Your task to perform on an android device: Search for pizza restaurants on Maps Image 0: 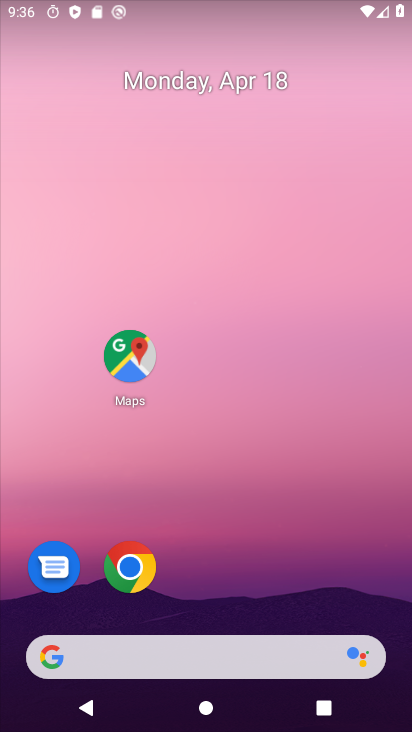
Step 0: click (132, 383)
Your task to perform on an android device: Search for pizza restaurants on Maps Image 1: 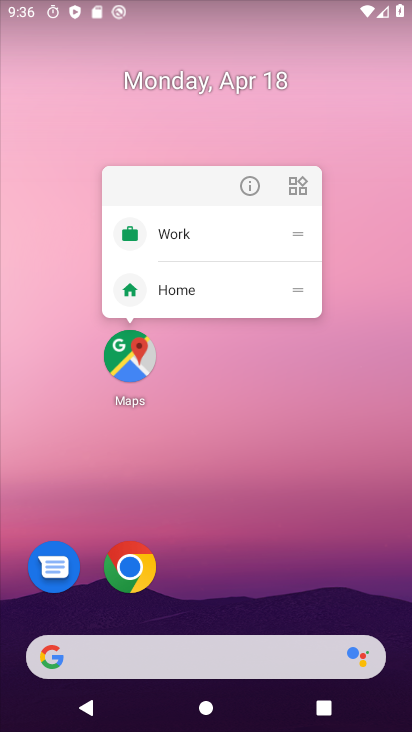
Step 1: drag from (256, 679) to (306, 292)
Your task to perform on an android device: Search for pizza restaurants on Maps Image 2: 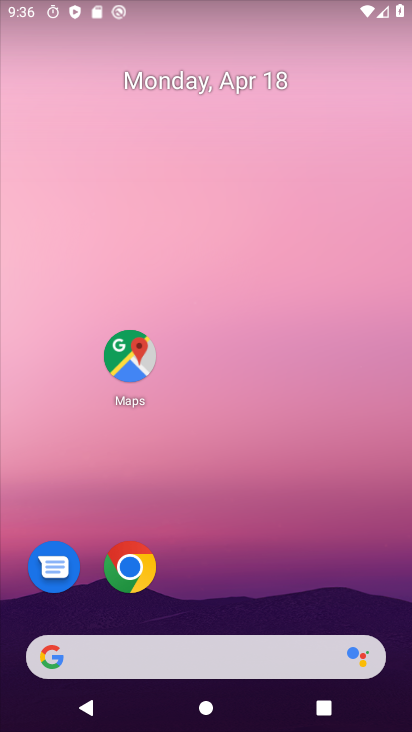
Step 2: drag from (288, 596) to (264, 260)
Your task to perform on an android device: Search for pizza restaurants on Maps Image 3: 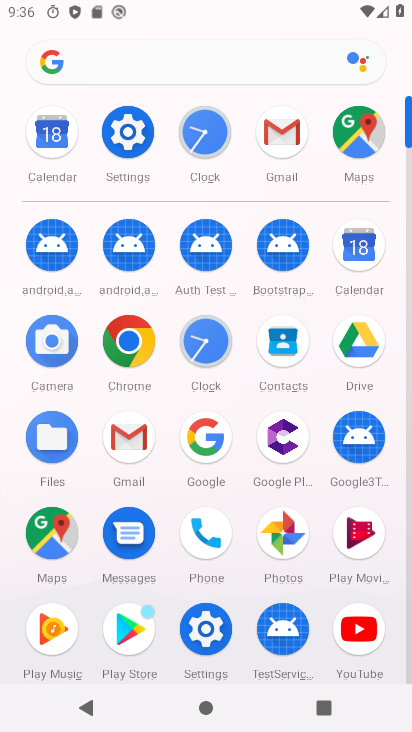
Step 3: click (345, 131)
Your task to perform on an android device: Search for pizza restaurants on Maps Image 4: 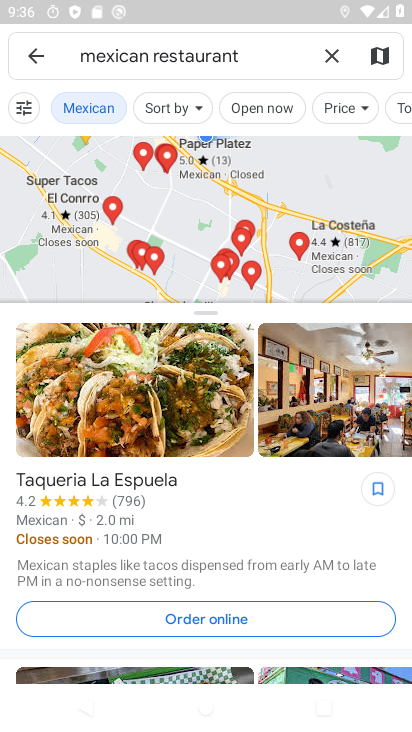
Step 4: click (332, 68)
Your task to perform on an android device: Search for pizza restaurants on Maps Image 5: 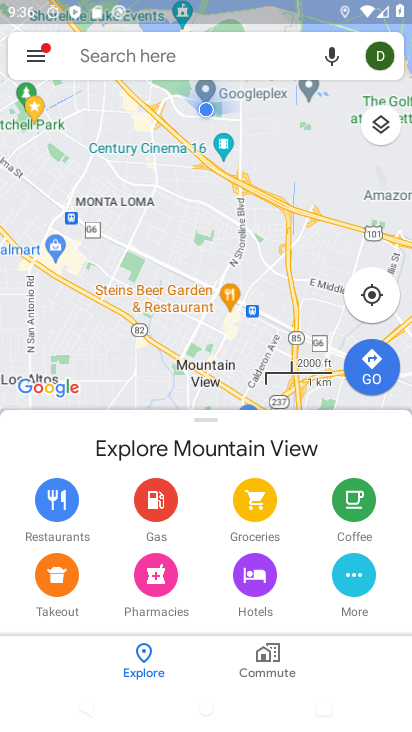
Step 5: click (160, 56)
Your task to perform on an android device: Search for pizza restaurants on Maps Image 6: 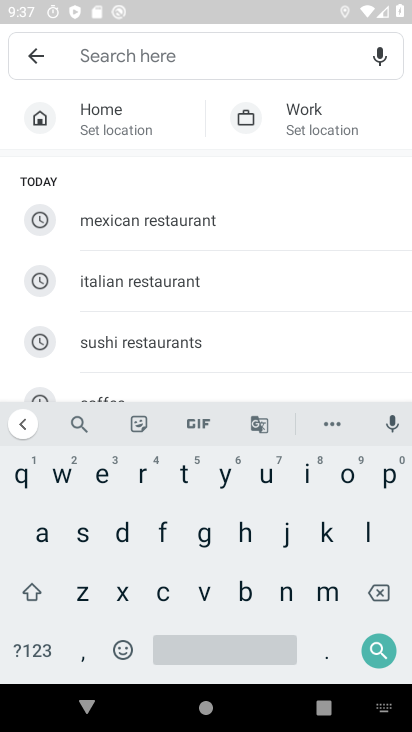
Step 6: click (388, 482)
Your task to perform on an android device: Search for pizza restaurants on Maps Image 7: 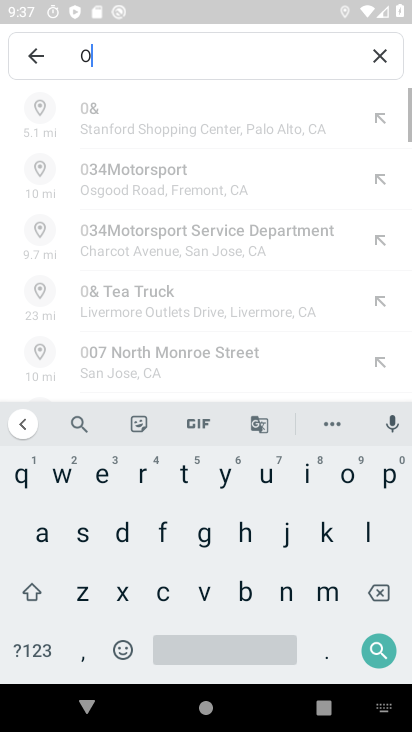
Step 7: click (303, 477)
Your task to perform on an android device: Search for pizza restaurants on Maps Image 8: 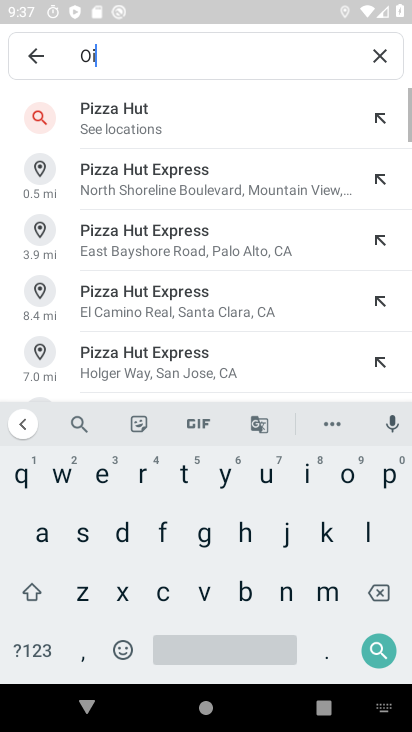
Step 8: click (381, 50)
Your task to perform on an android device: Search for pizza restaurants on Maps Image 9: 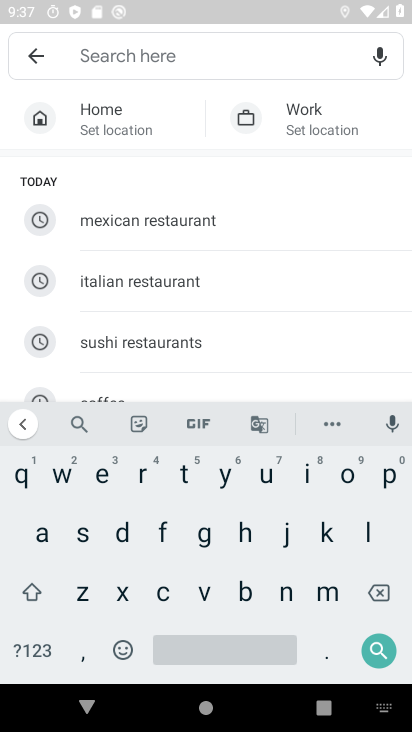
Step 9: click (387, 483)
Your task to perform on an android device: Search for pizza restaurants on Maps Image 10: 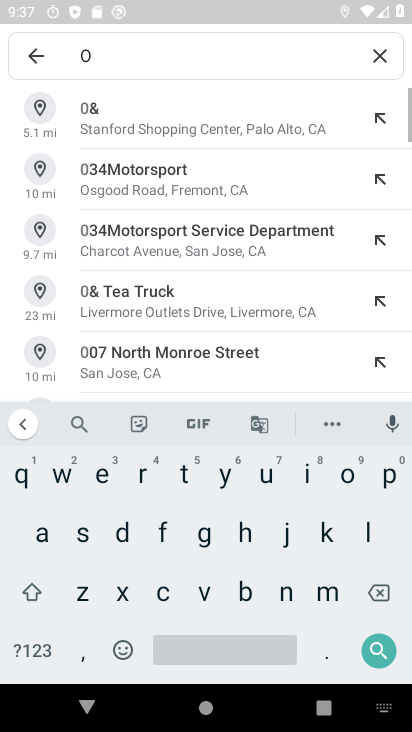
Step 10: click (303, 483)
Your task to perform on an android device: Search for pizza restaurants on Maps Image 11: 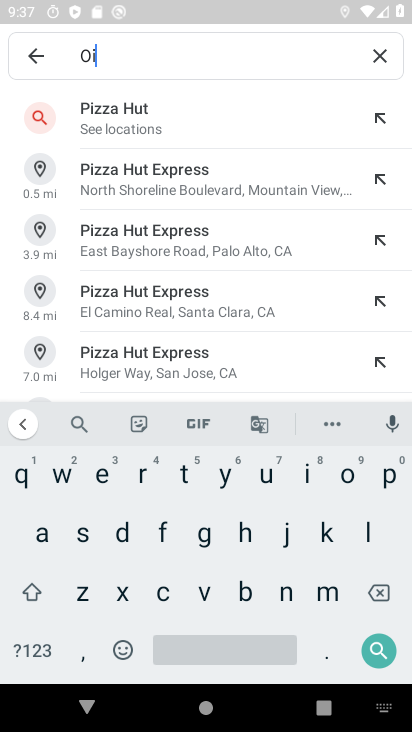
Step 11: click (85, 595)
Your task to perform on an android device: Search for pizza restaurants on Maps Image 12: 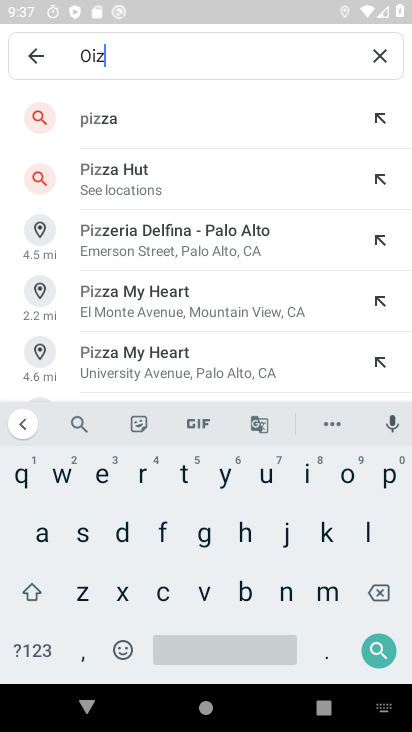
Step 12: click (366, 77)
Your task to perform on an android device: Search for pizza restaurants on Maps Image 13: 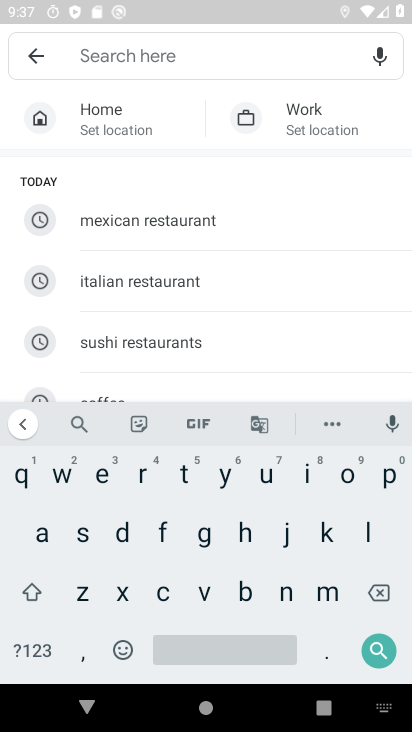
Step 13: click (383, 472)
Your task to perform on an android device: Search for pizza restaurants on Maps Image 14: 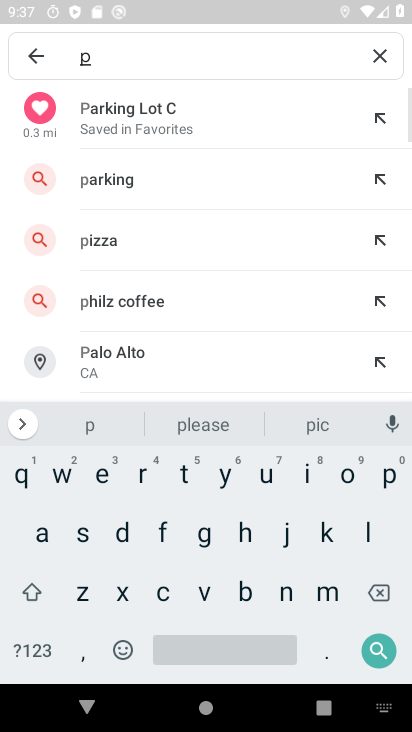
Step 14: click (310, 470)
Your task to perform on an android device: Search for pizza restaurants on Maps Image 15: 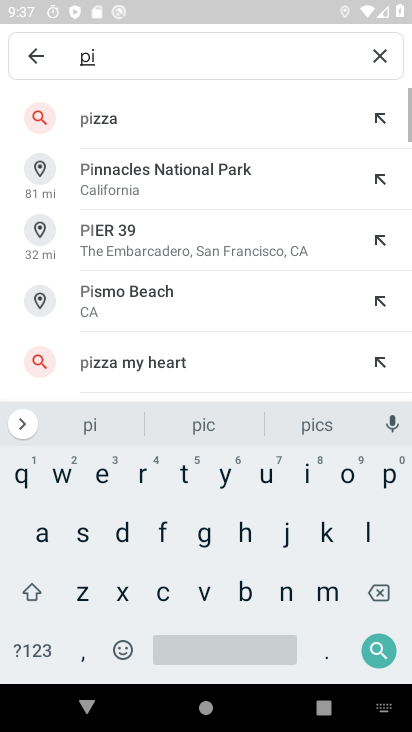
Step 15: click (88, 597)
Your task to perform on an android device: Search for pizza restaurants on Maps Image 16: 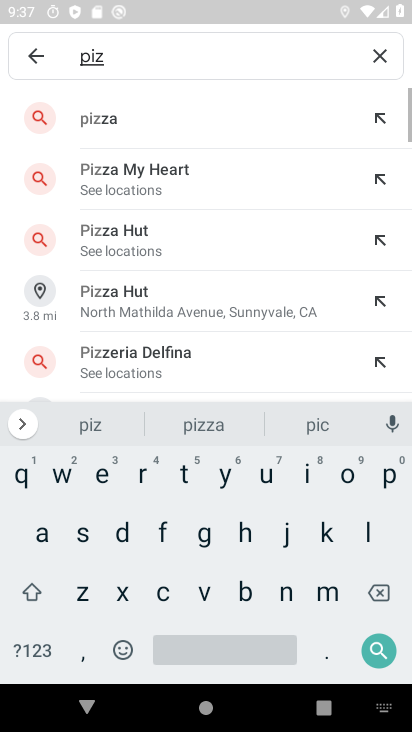
Step 16: click (89, 595)
Your task to perform on an android device: Search for pizza restaurants on Maps Image 17: 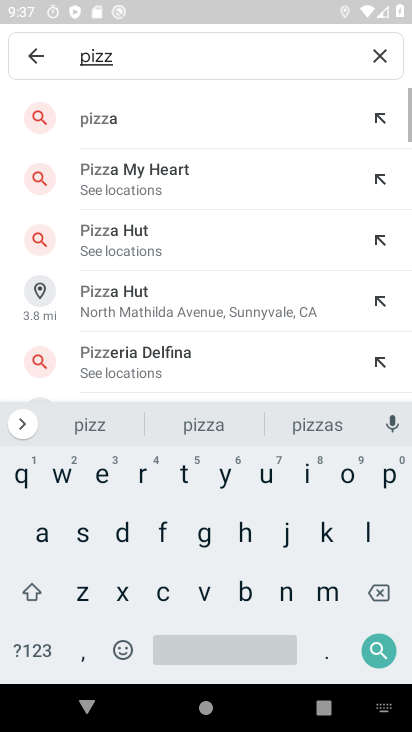
Step 17: click (32, 530)
Your task to perform on an android device: Search for pizza restaurants on Maps Image 18: 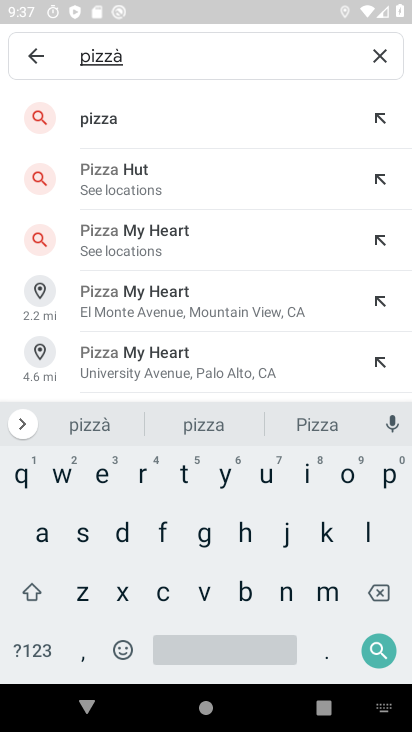
Step 18: click (389, 587)
Your task to perform on an android device: Search for pizza restaurants on Maps Image 19: 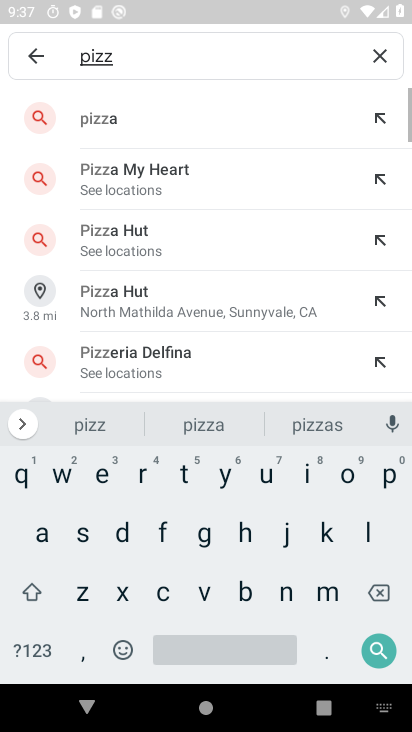
Step 19: click (35, 518)
Your task to perform on an android device: Search for pizza restaurants on Maps Image 20: 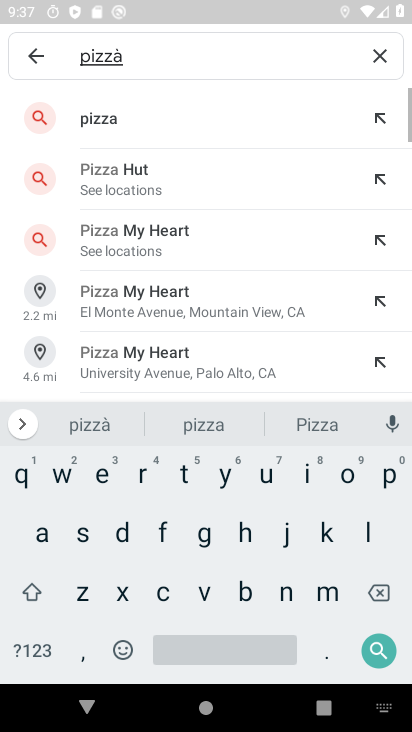
Step 20: click (375, 593)
Your task to perform on an android device: Search for pizza restaurants on Maps Image 21: 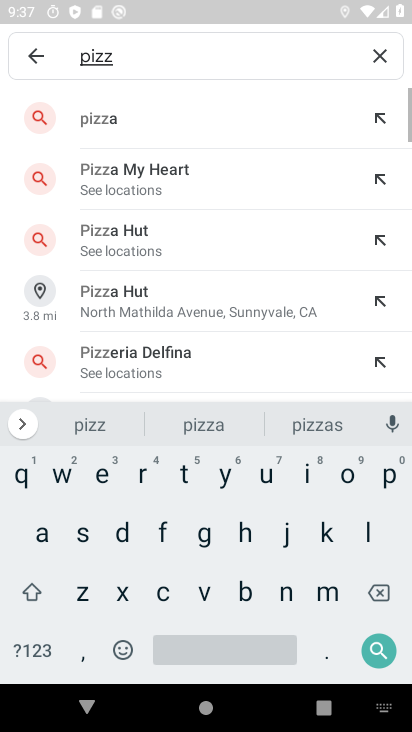
Step 21: click (44, 533)
Your task to perform on an android device: Search for pizza restaurants on Maps Image 22: 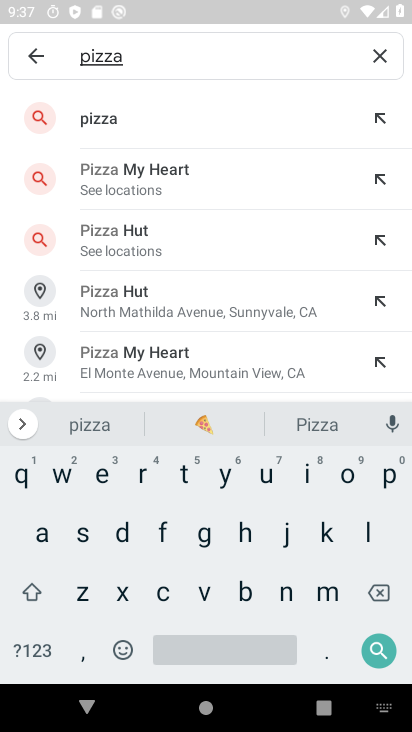
Step 22: click (216, 645)
Your task to perform on an android device: Search for pizza restaurants on Maps Image 23: 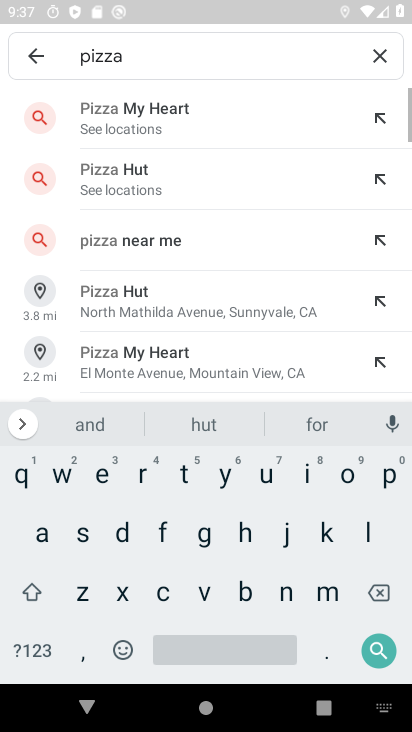
Step 23: click (142, 485)
Your task to perform on an android device: Search for pizza restaurants on Maps Image 24: 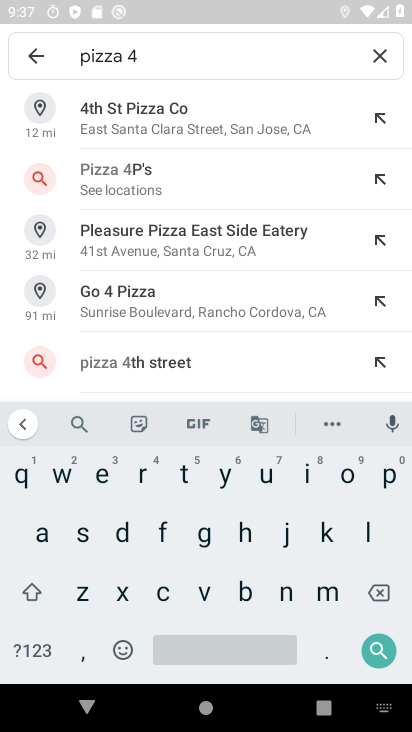
Step 24: click (368, 583)
Your task to perform on an android device: Search for pizza restaurants on Maps Image 25: 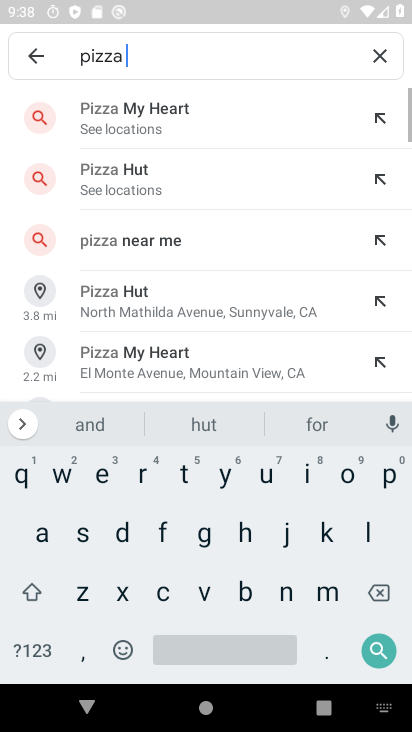
Step 25: drag from (359, 575) to (279, 467)
Your task to perform on an android device: Search for pizza restaurants on Maps Image 26: 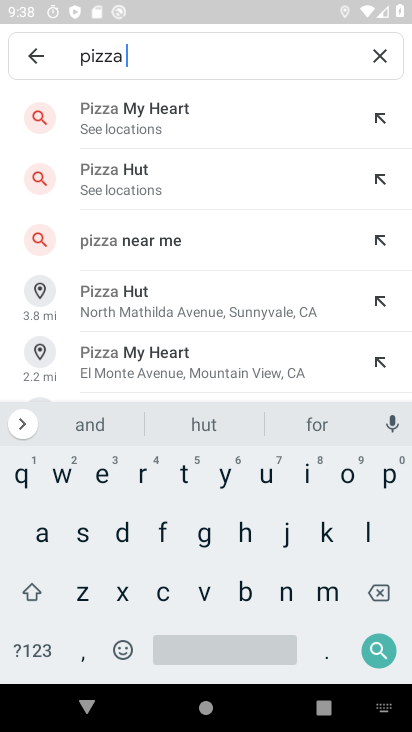
Step 26: click (138, 478)
Your task to perform on an android device: Search for pizza restaurants on Maps Image 27: 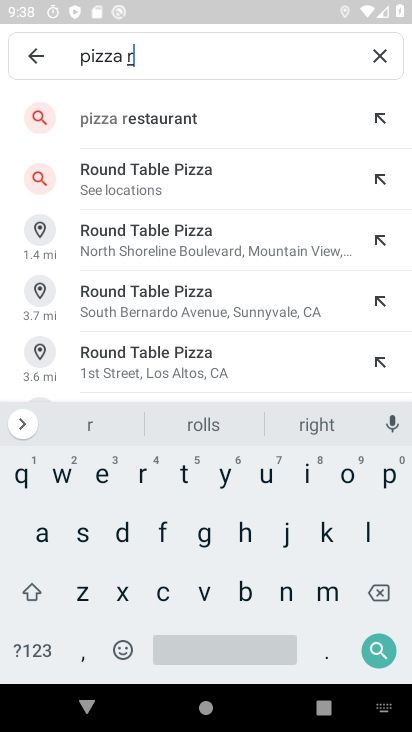
Step 27: click (156, 128)
Your task to perform on an android device: Search for pizza restaurants on Maps Image 28: 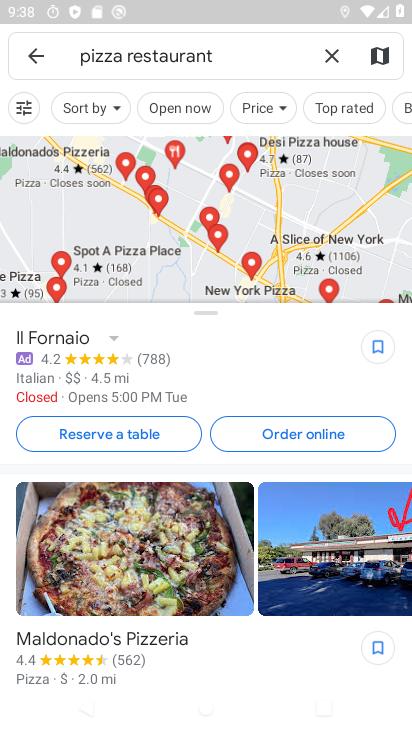
Step 28: task complete